Your task to perform on an android device: snooze an email in the gmail app Image 0: 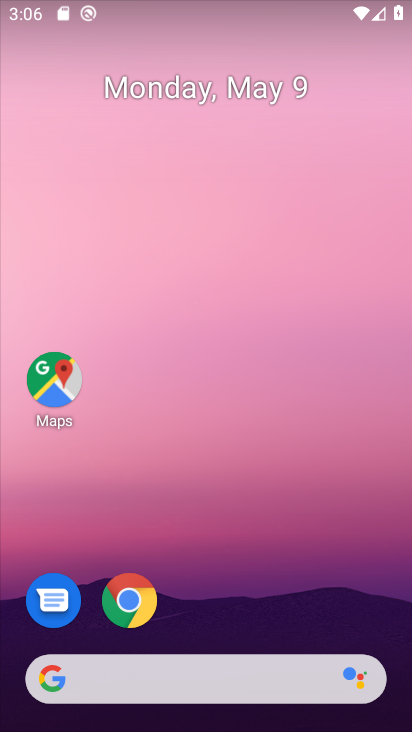
Step 0: drag from (305, 587) to (281, 289)
Your task to perform on an android device: snooze an email in the gmail app Image 1: 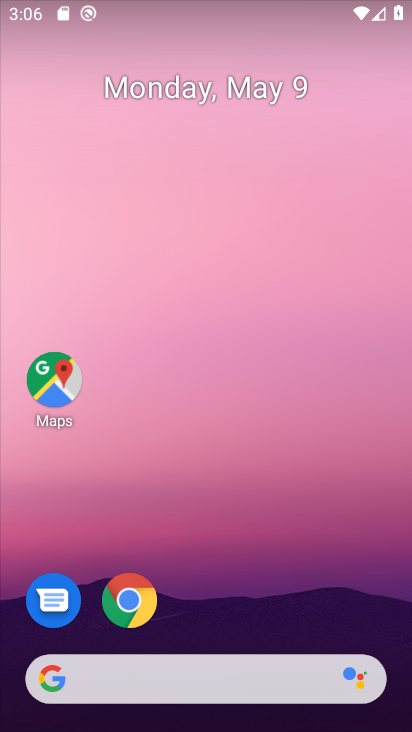
Step 1: drag from (233, 560) to (191, 151)
Your task to perform on an android device: snooze an email in the gmail app Image 2: 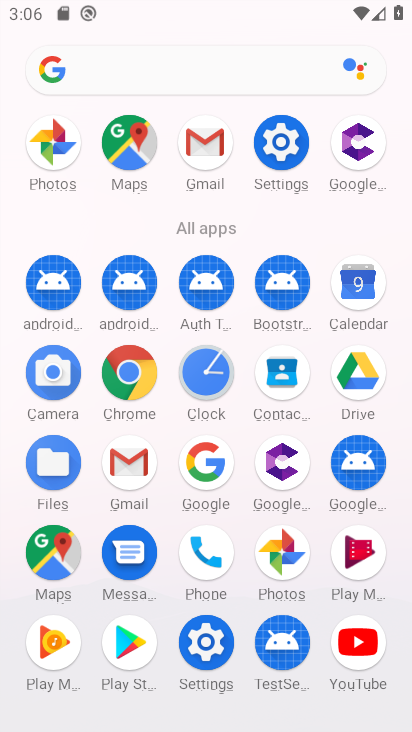
Step 2: click (124, 457)
Your task to perform on an android device: snooze an email in the gmail app Image 3: 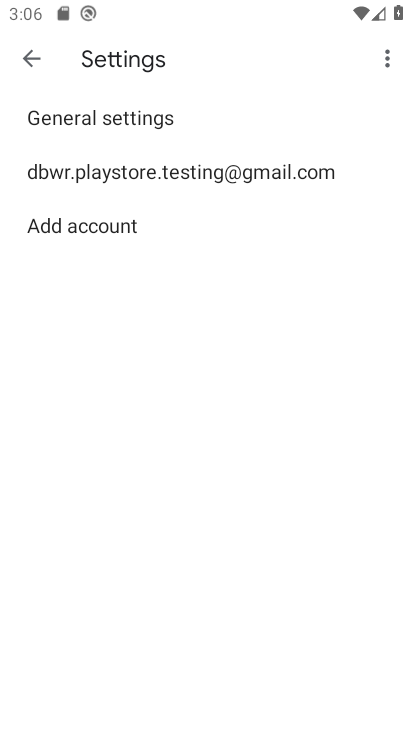
Step 3: click (42, 68)
Your task to perform on an android device: snooze an email in the gmail app Image 4: 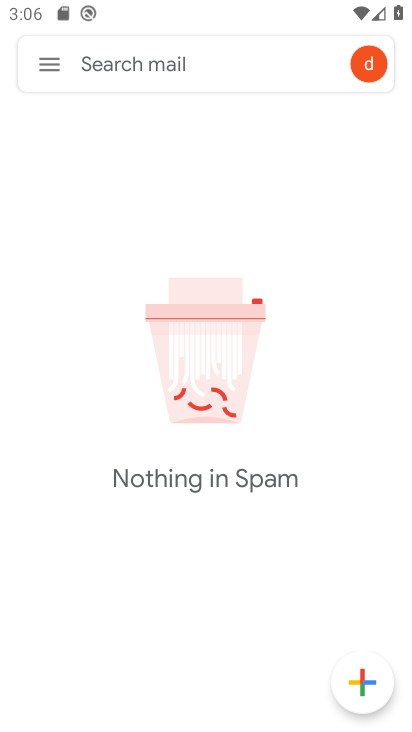
Step 4: click (57, 82)
Your task to perform on an android device: snooze an email in the gmail app Image 5: 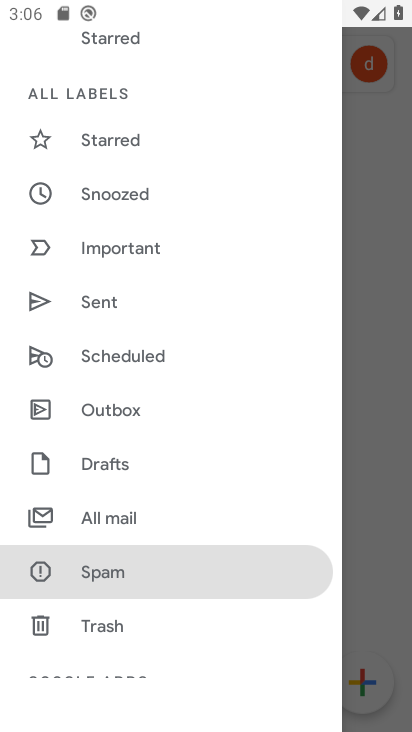
Step 5: click (148, 525)
Your task to perform on an android device: snooze an email in the gmail app Image 6: 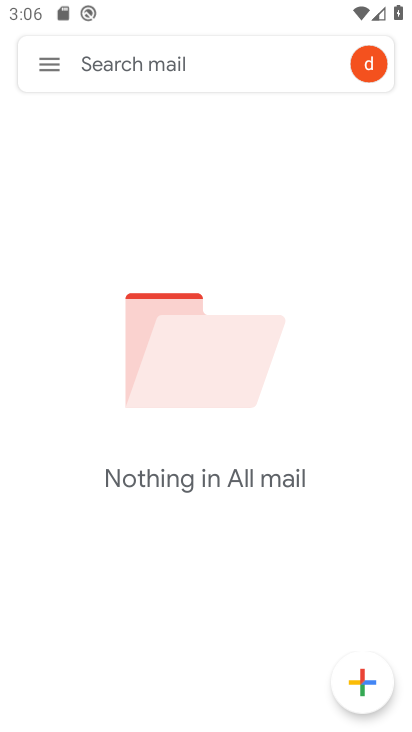
Step 6: task complete